Your task to perform on an android device: set an alarm Image 0: 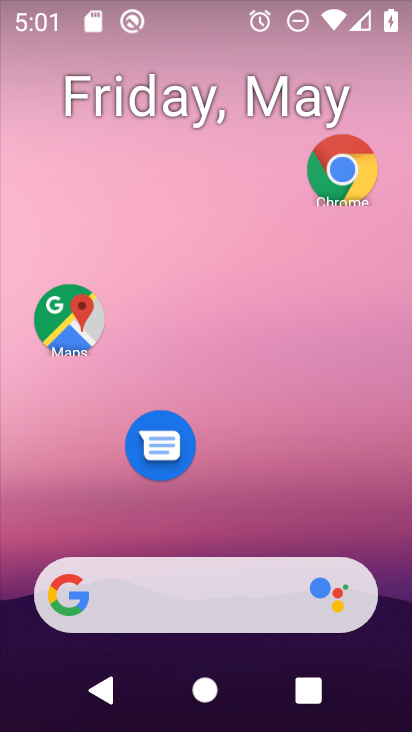
Step 0: drag from (237, 526) to (262, 110)
Your task to perform on an android device: set an alarm Image 1: 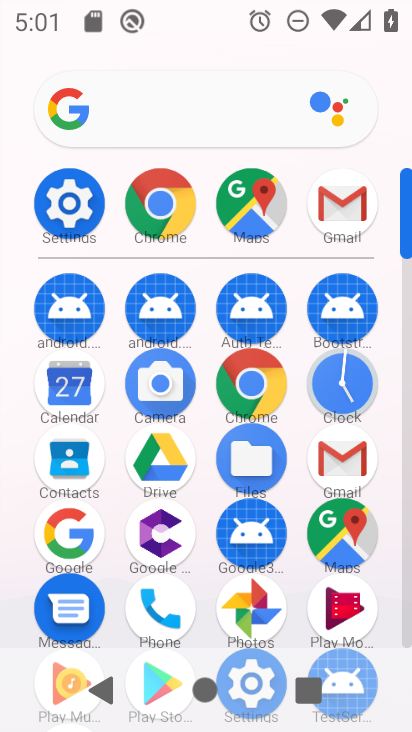
Step 1: click (352, 399)
Your task to perform on an android device: set an alarm Image 2: 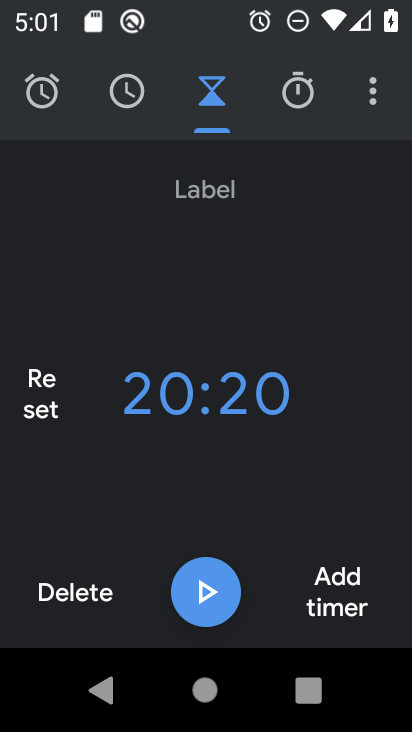
Step 2: click (39, 98)
Your task to perform on an android device: set an alarm Image 3: 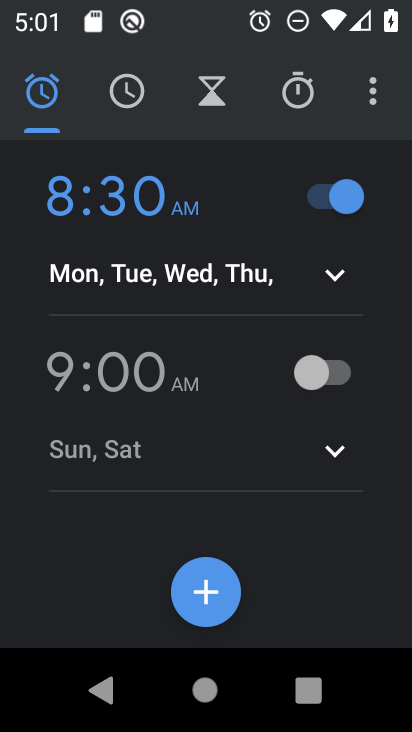
Step 3: click (335, 376)
Your task to perform on an android device: set an alarm Image 4: 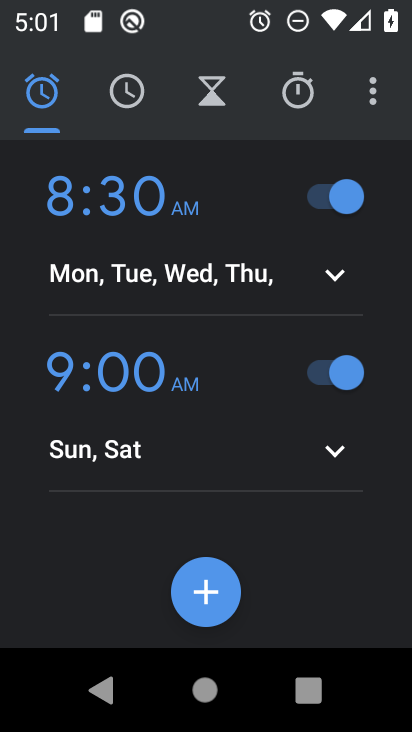
Step 4: task complete